Your task to perform on an android device: Go to settings Image 0: 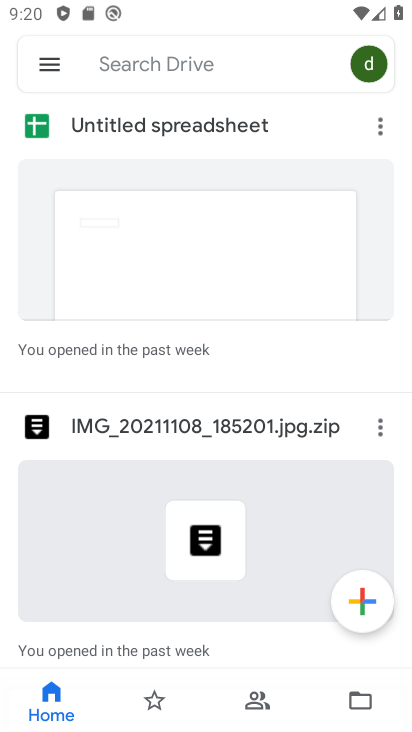
Step 0: press home button
Your task to perform on an android device: Go to settings Image 1: 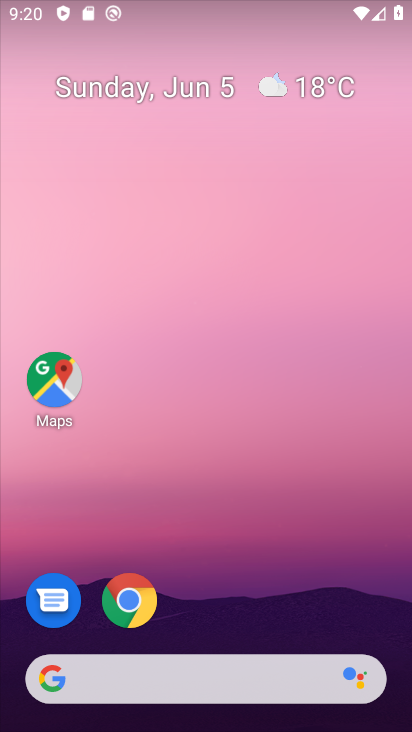
Step 1: drag from (273, 285) to (297, 75)
Your task to perform on an android device: Go to settings Image 2: 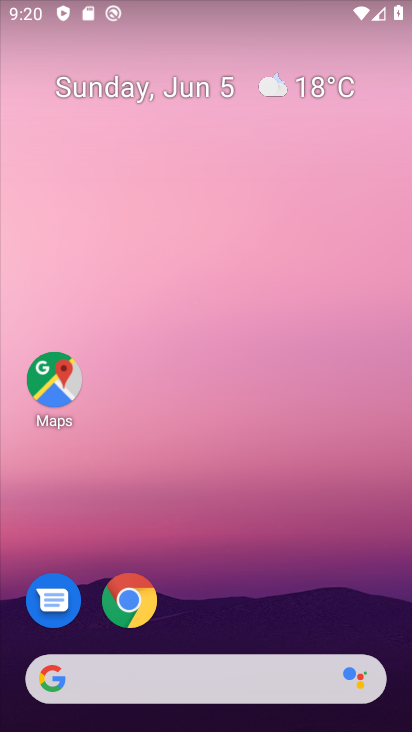
Step 2: drag from (319, 502) to (187, 122)
Your task to perform on an android device: Go to settings Image 3: 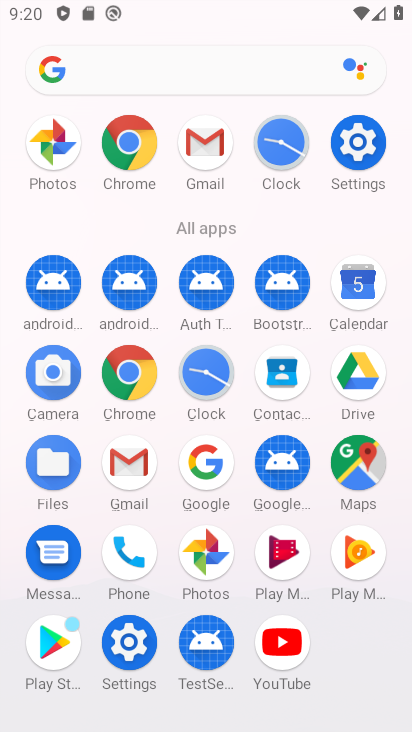
Step 3: click (351, 155)
Your task to perform on an android device: Go to settings Image 4: 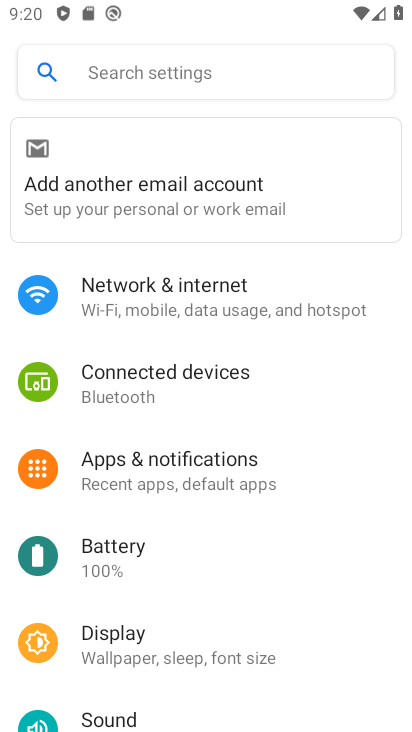
Step 4: task complete